Your task to perform on an android device: Clear the cart on bestbuy. Search for "macbook air" on bestbuy, select the first entry, add it to the cart, then select checkout. Image 0: 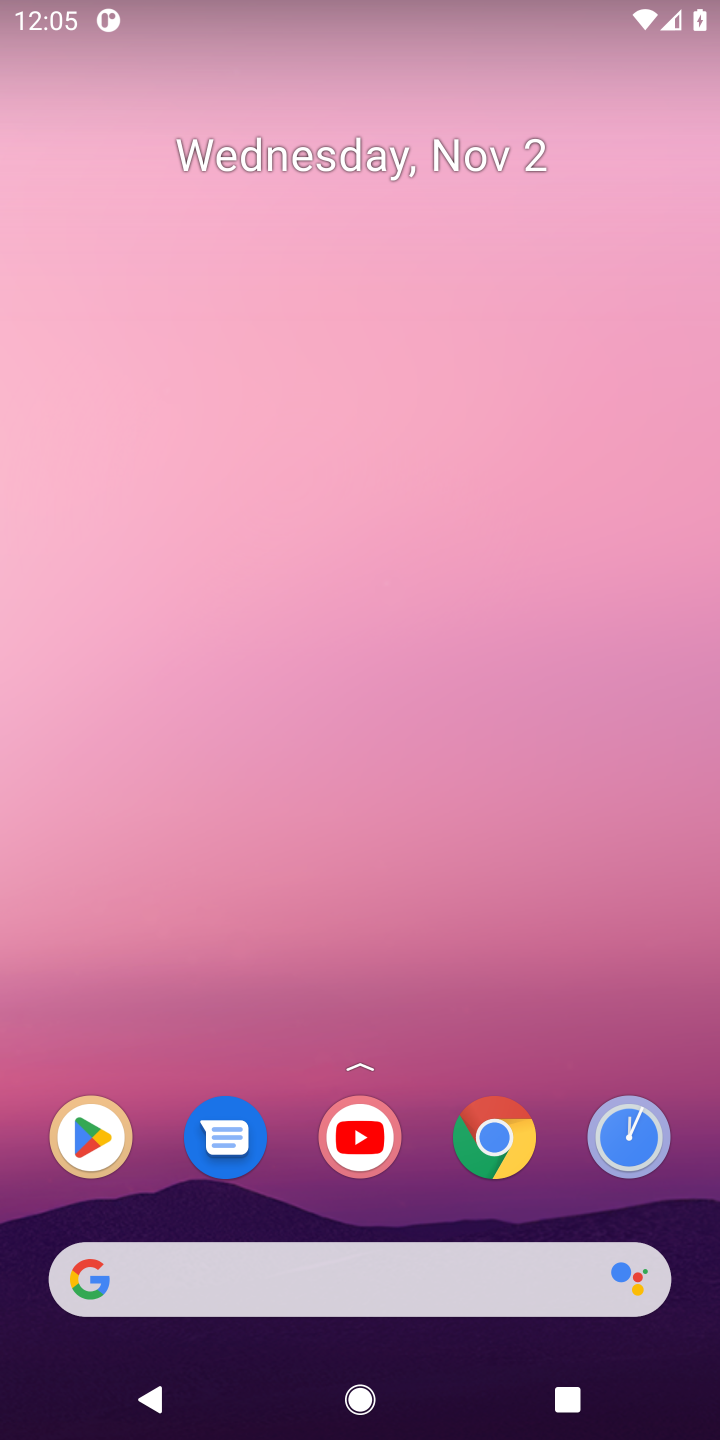
Step 0: click (248, 1295)
Your task to perform on an android device: Clear the cart on bestbuy. Search for "macbook air" on bestbuy, select the first entry, add it to the cart, then select checkout. Image 1: 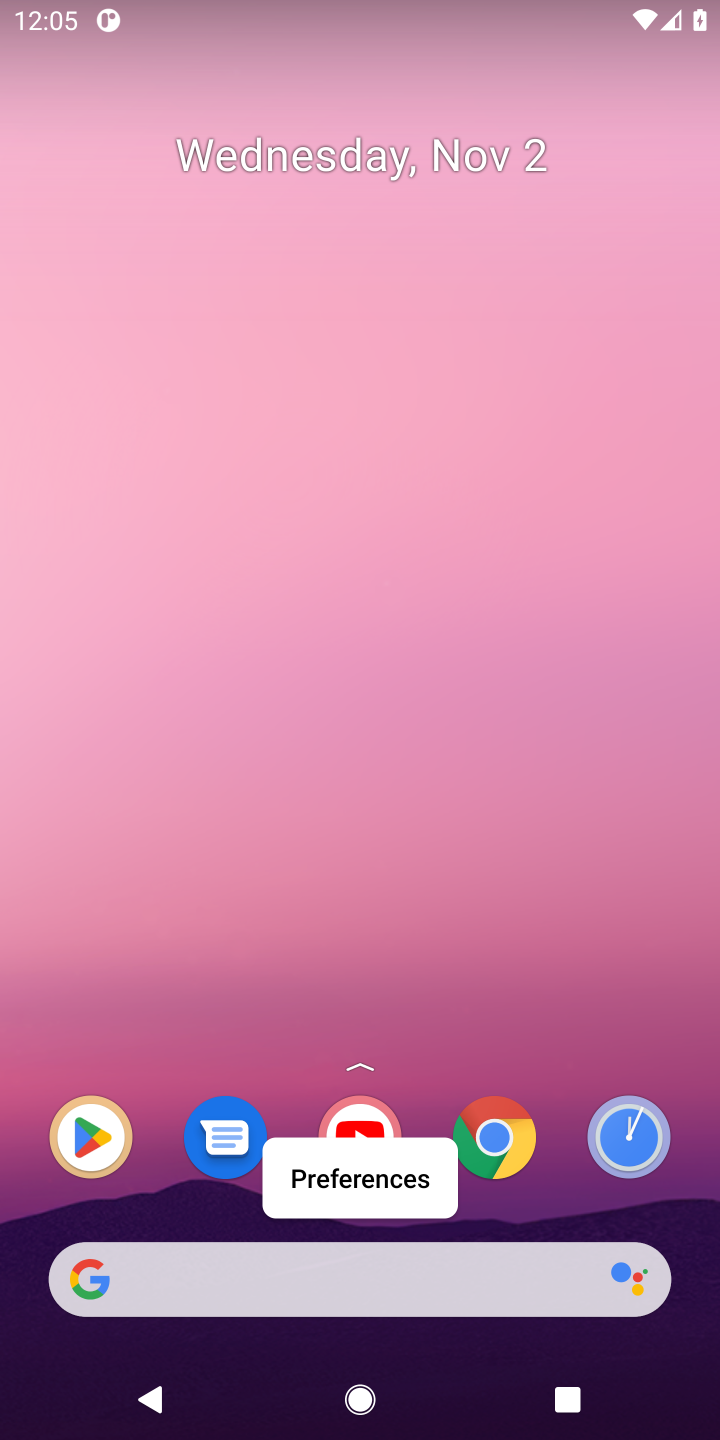
Step 1: click (248, 1295)
Your task to perform on an android device: Clear the cart on bestbuy. Search for "macbook air" on bestbuy, select the first entry, add it to the cart, then select checkout. Image 2: 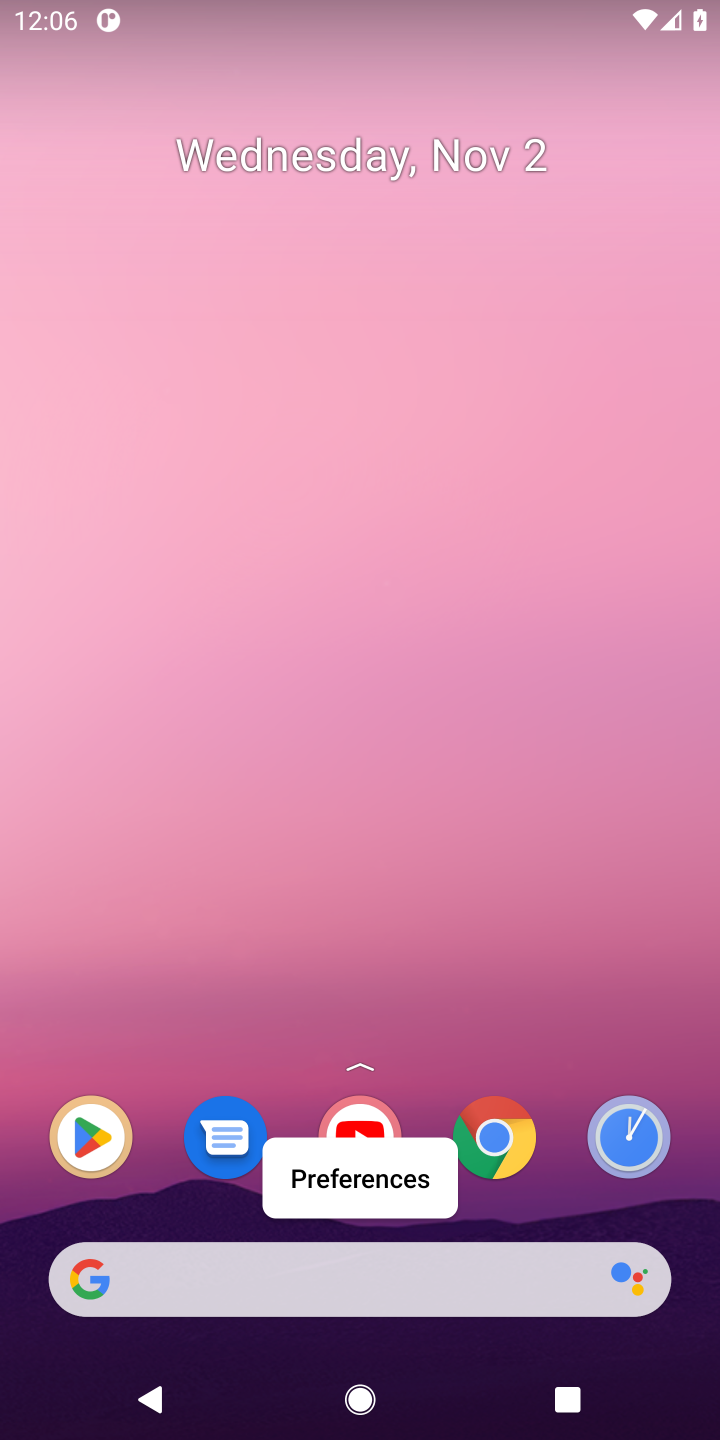
Step 2: click (408, 1291)
Your task to perform on an android device: Clear the cart on bestbuy. Search for "macbook air" on bestbuy, select the first entry, add it to the cart, then select checkout. Image 3: 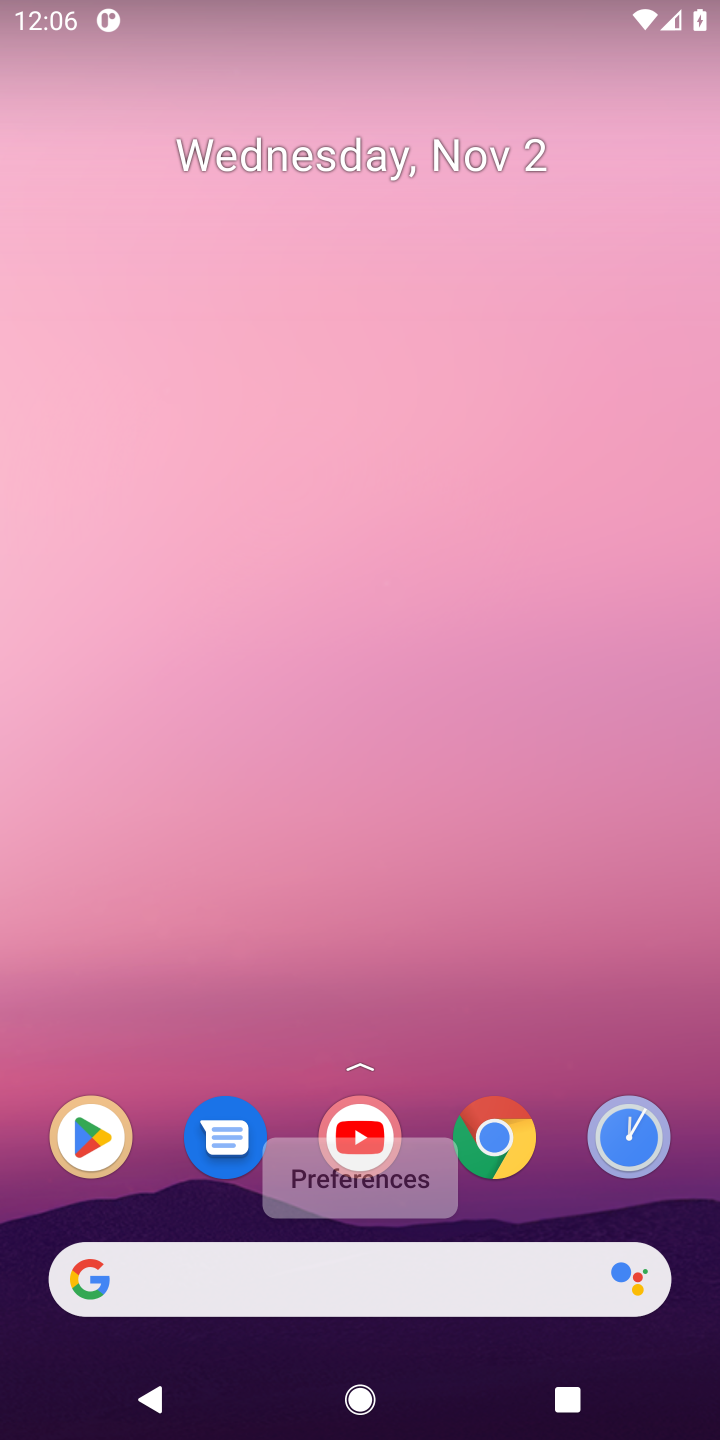
Step 3: click (408, 1291)
Your task to perform on an android device: Clear the cart on bestbuy. Search for "macbook air" on bestbuy, select the first entry, add it to the cart, then select checkout. Image 4: 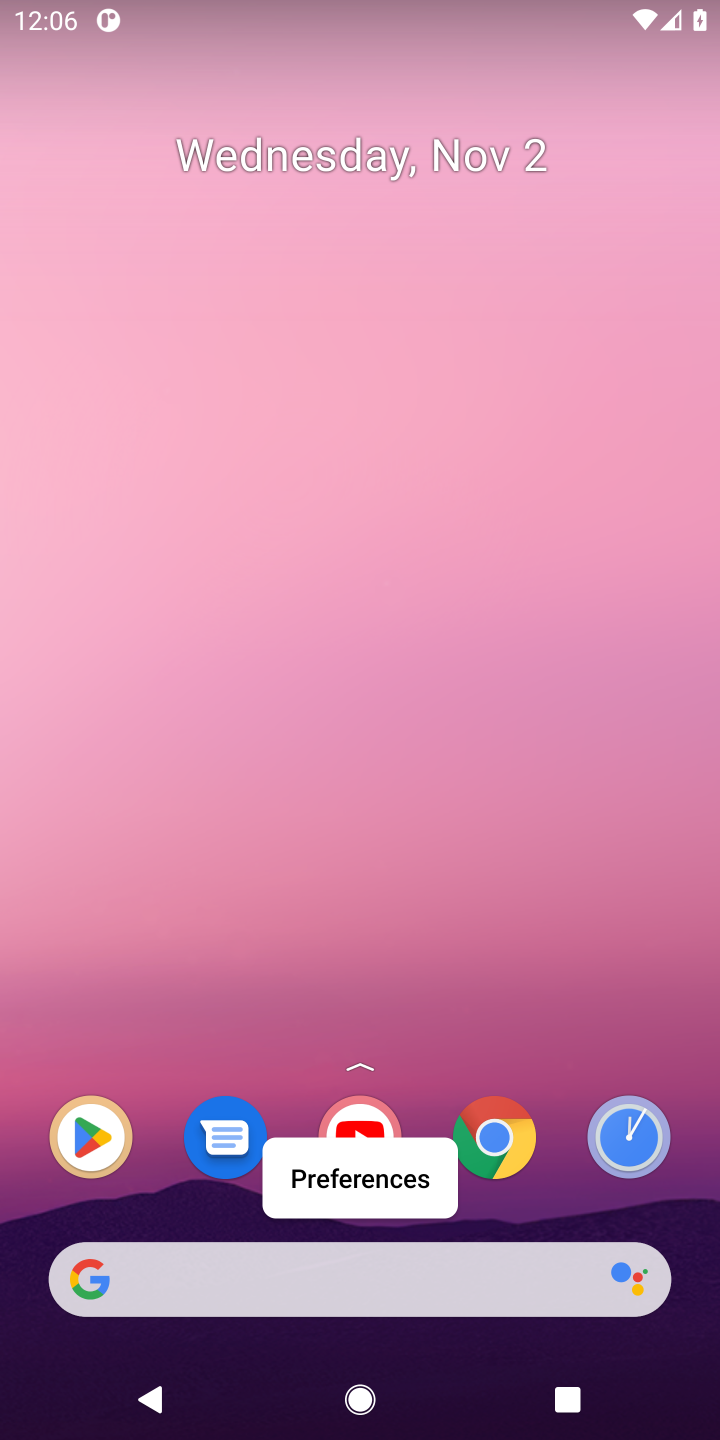
Step 4: click (218, 1264)
Your task to perform on an android device: Clear the cart on bestbuy. Search for "macbook air" on bestbuy, select the first entry, add it to the cart, then select checkout. Image 5: 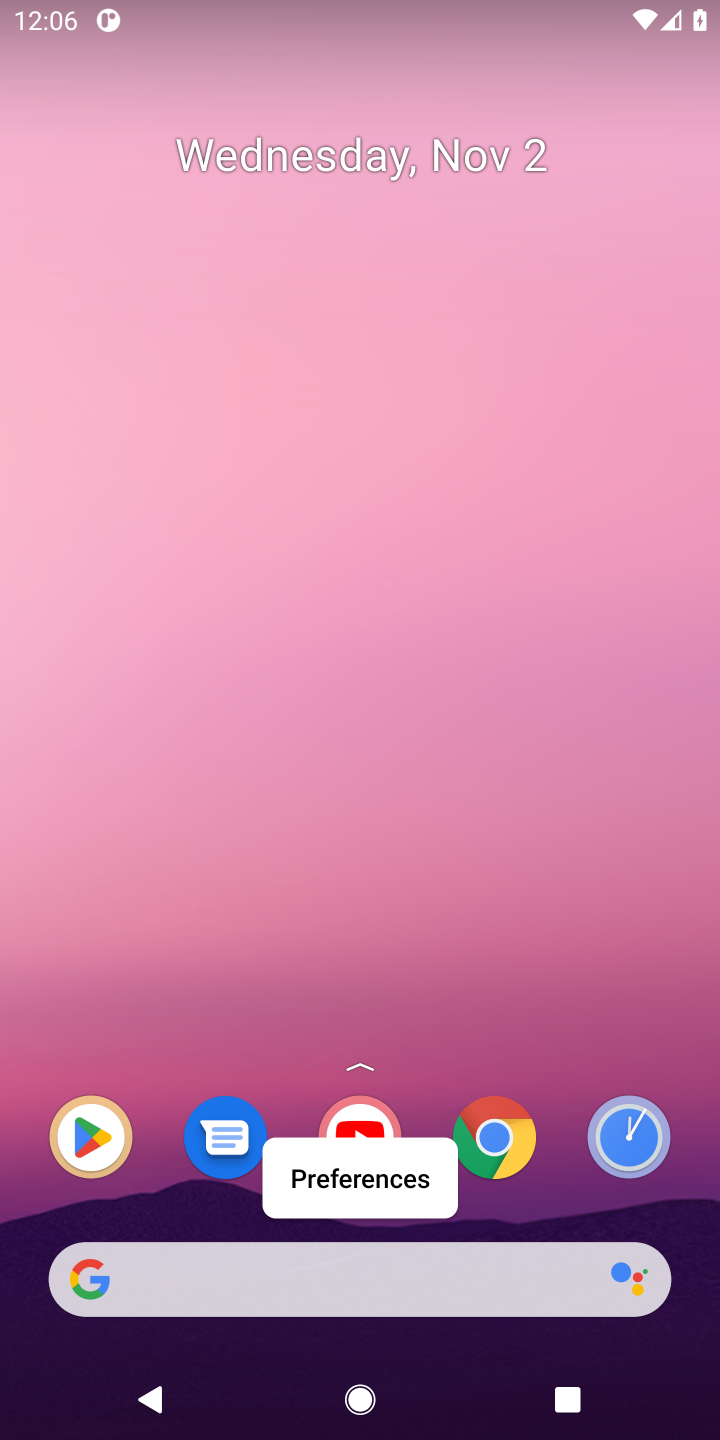
Step 5: click (184, 1275)
Your task to perform on an android device: Clear the cart on bestbuy. Search for "macbook air" on bestbuy, select the first entry, add it to the cart, then select checkout. Image 6: 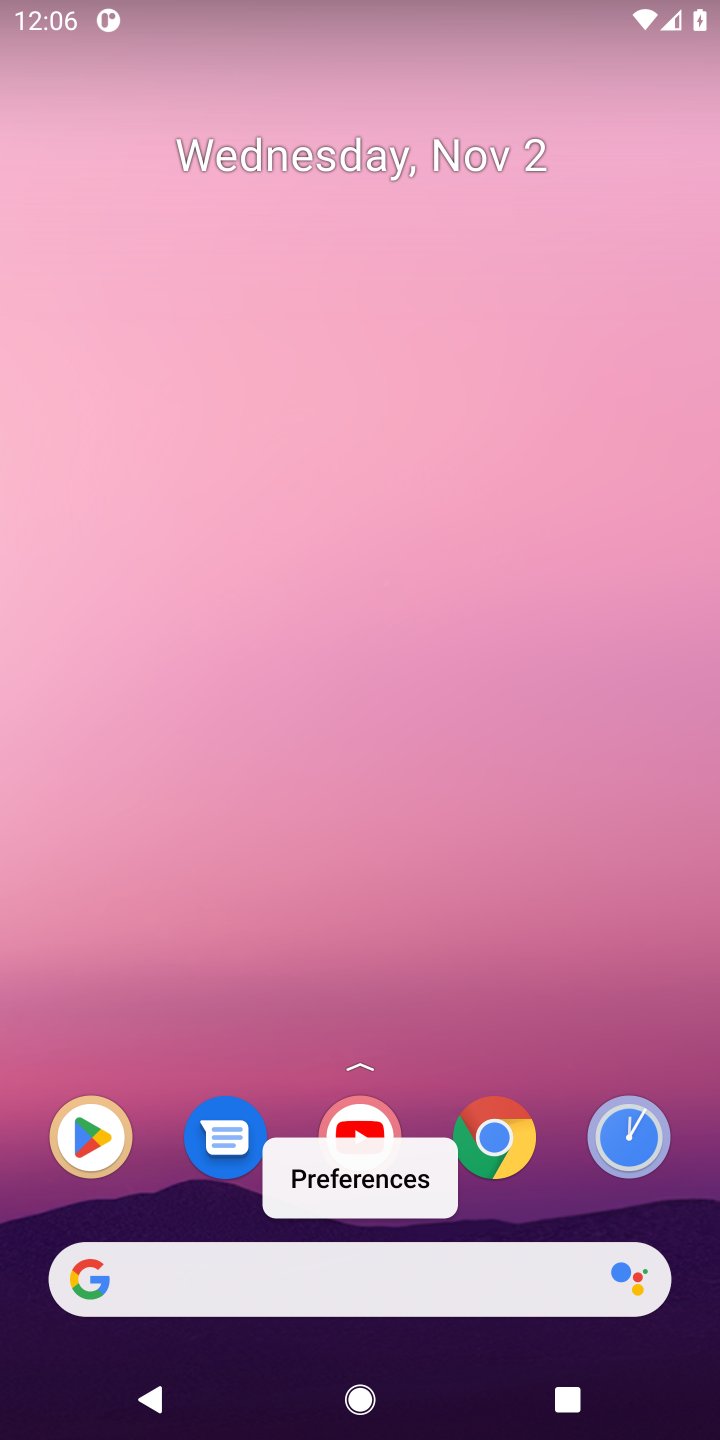
Step 6: click (184, 1275)
Your task to perform on an android device: Clear the cart on bestbuy. Search for "macbook air" on bestbuy, select the first entry, add it to the cart, then select checkout. Image 7: 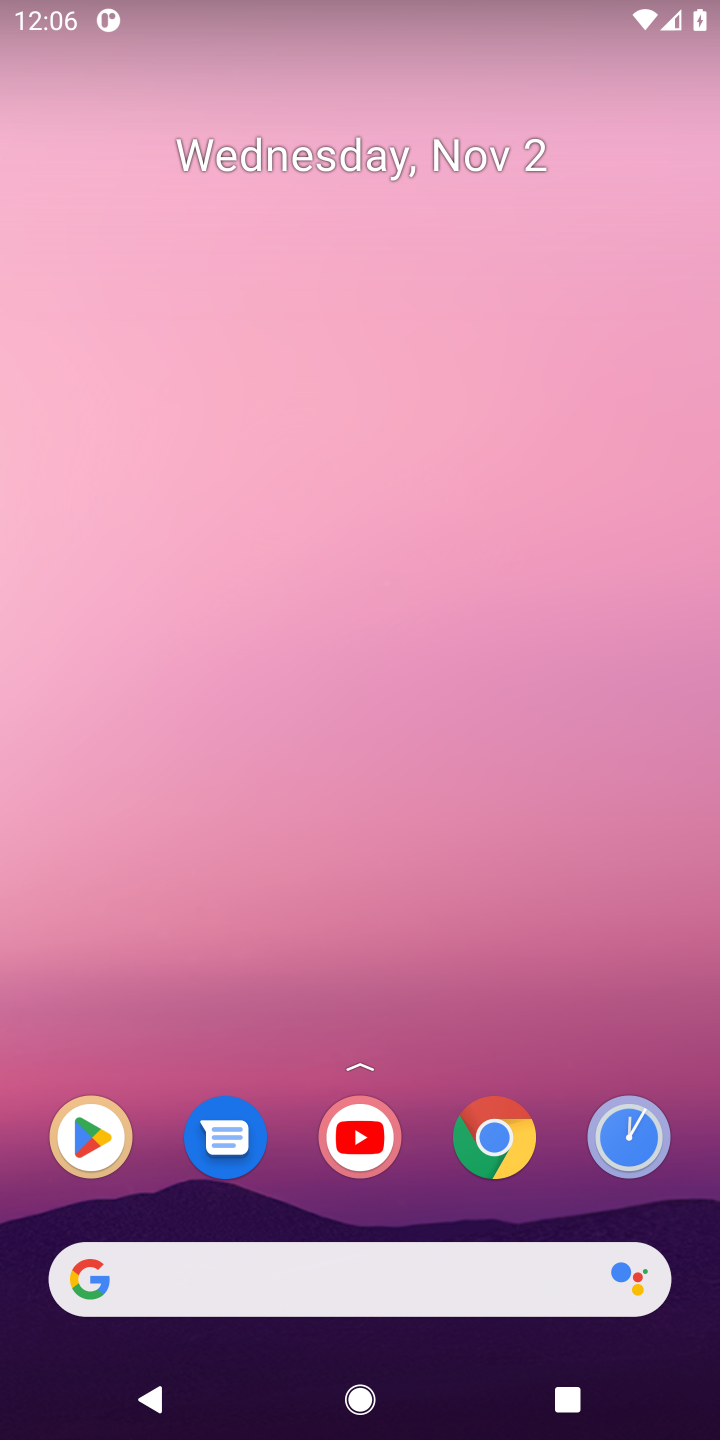
Step 7: click (184, 1275)
Your task to perform on an android device: Clear the cart on bestbuy. Search for "macbook air" on bestbuy, select the first entry, add it to the cart, then select checkout. Image 8: 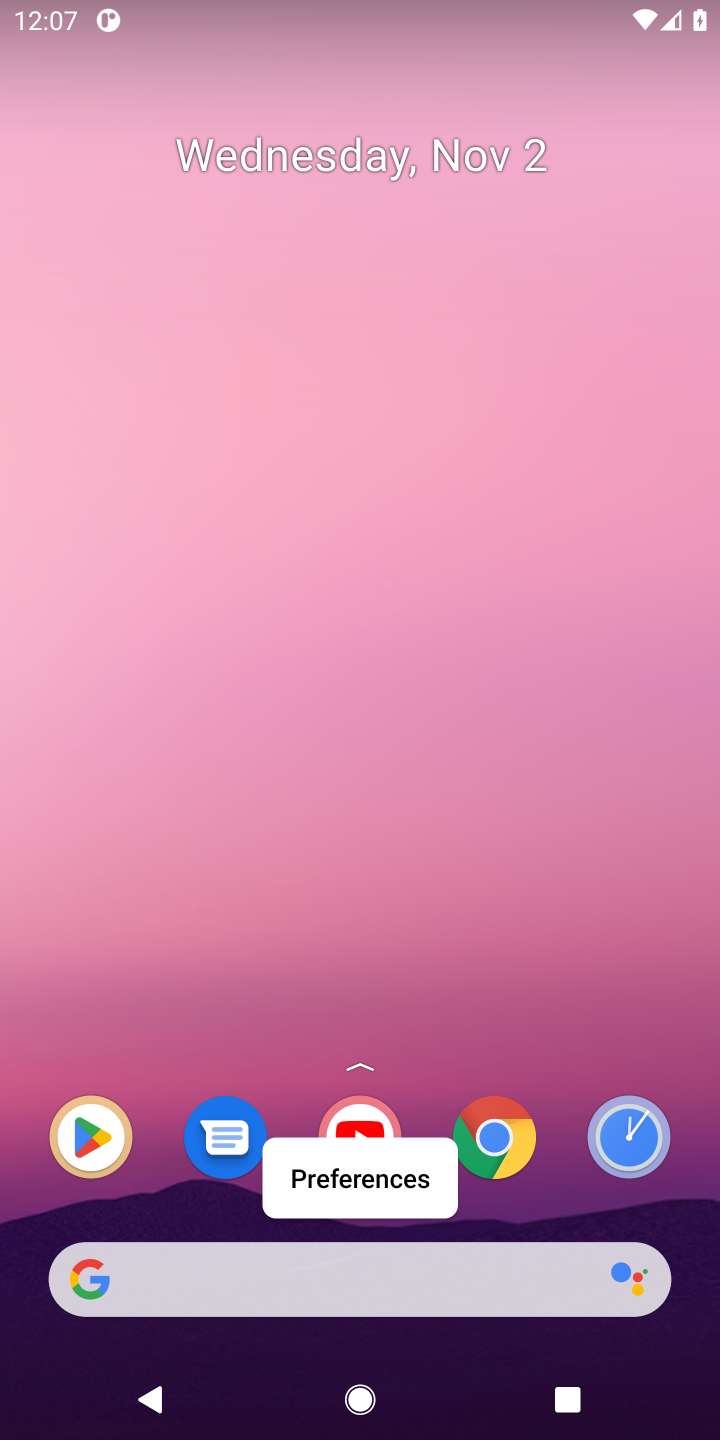
Step 8: click (344, 1257)
Your task to perform on an android device: Clear the cart on bestbuy. Search for "macbook air" on bestbuy, select the first entry, add it to the cart, then select checkout. Image 9: 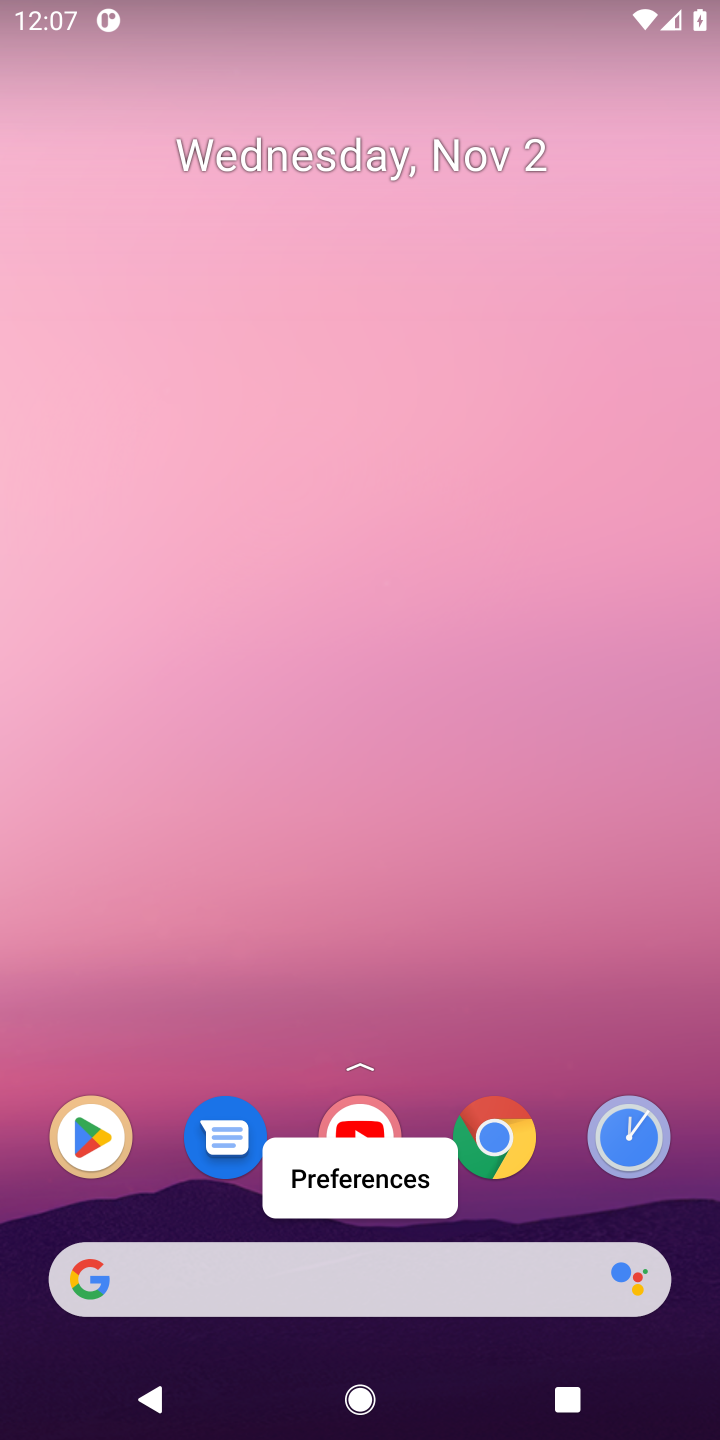
Step 9: click (344, 1257)
Your task to perform on an android device: Clear the cart on bestbuy. Search for "macbook air" on bestbuy, select the first entry, add it to the cart, then select checkout. Image 10: 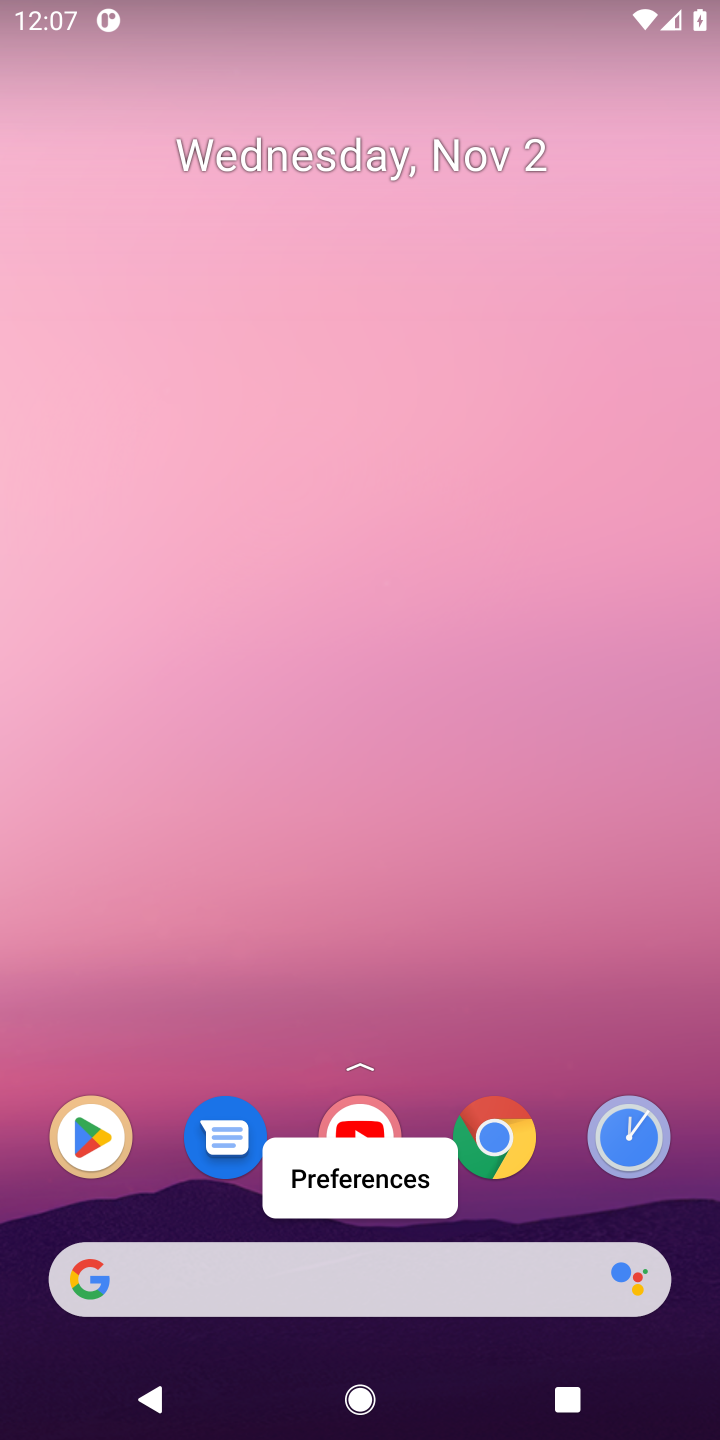
Step 10: click (344, 1257)
Your task to perform on an android device: Clear the cart on bestbuy. Search for "macbook air" on bestbuy, select the first entry, add it to the cart, then select checkout. Image 11: 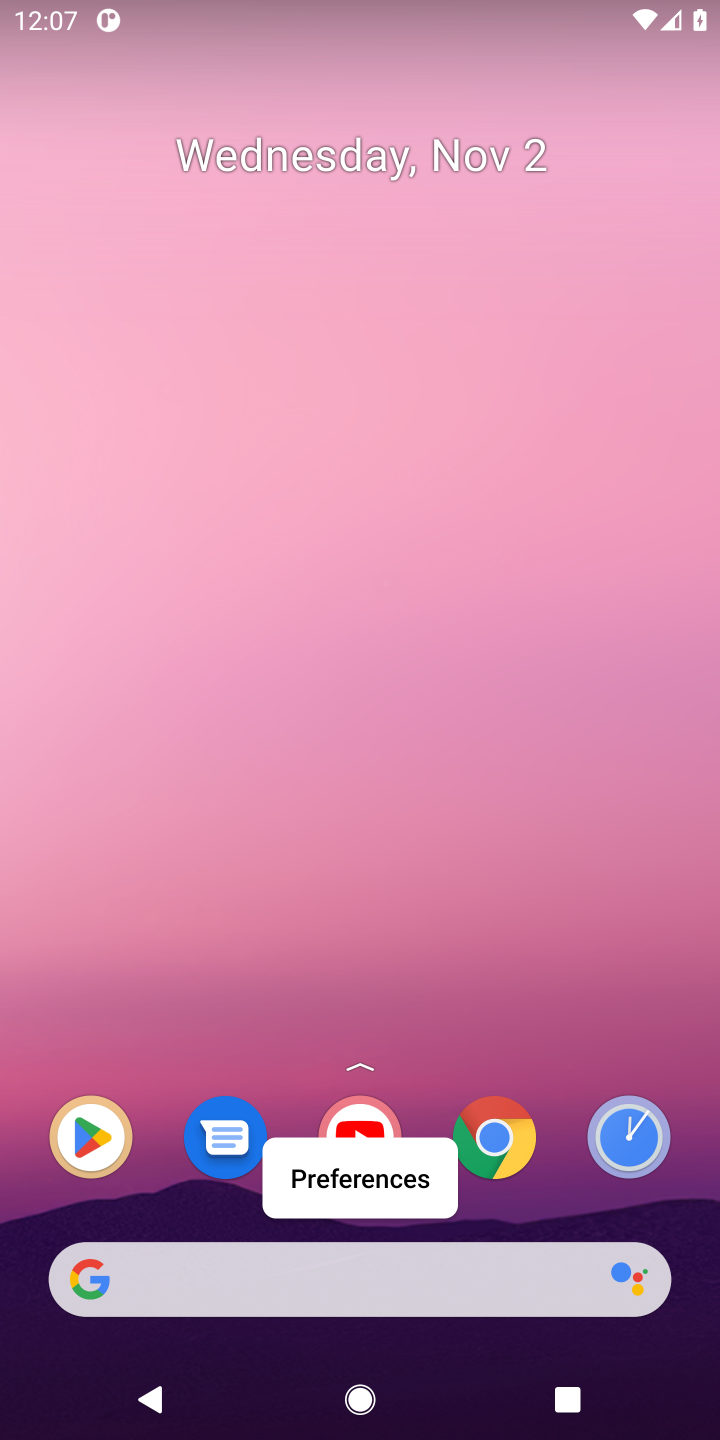
Step 11: click (503, 1150)
Your task to perform on an android device: Clear the cart on bestbuy. Search for "macbook air" on bestbuy, select the first entry, add it to the cart, then select checkout. Image 12: 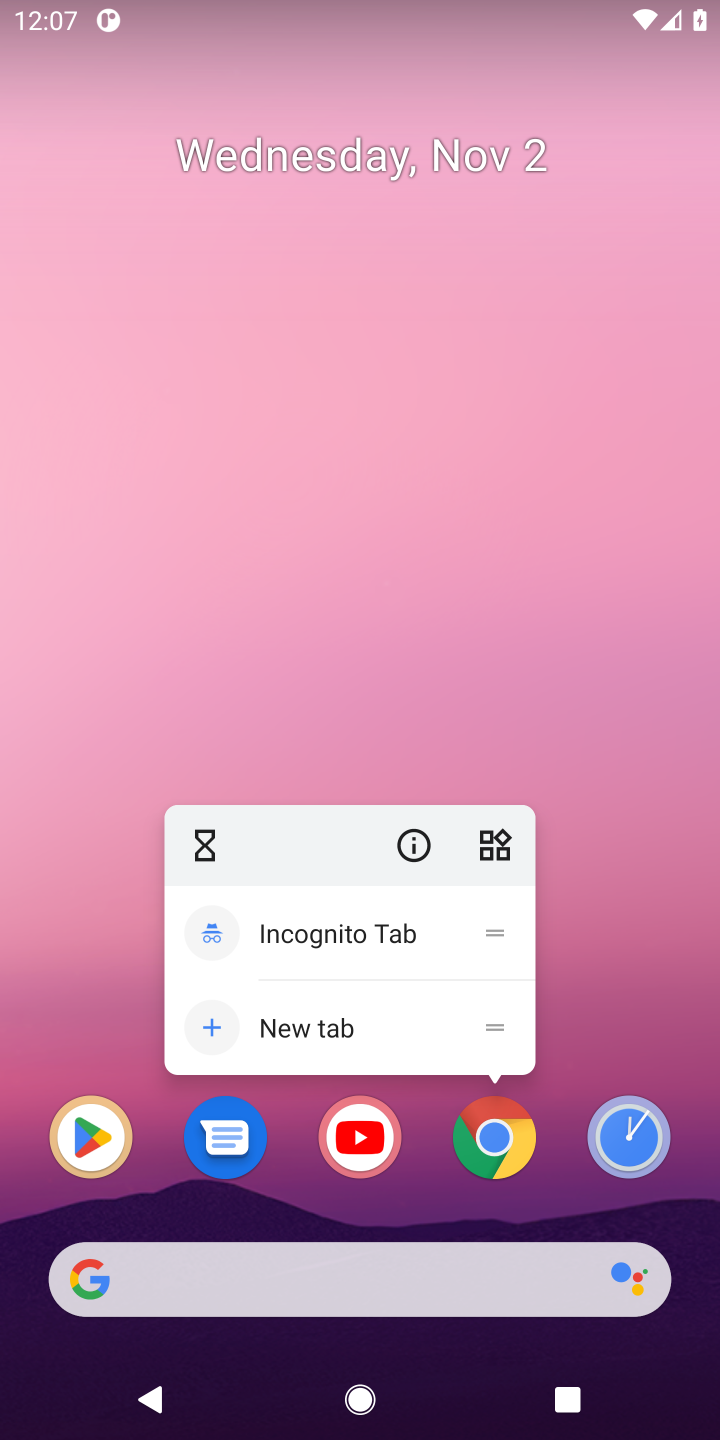
Step 12: click (501, 1145)
Your task to perform on an android device: Clear the cart on bestbuy. Search for "macbook air" on bestbuy, select the first entry, add it to the cart, then select checkout. Image 13: 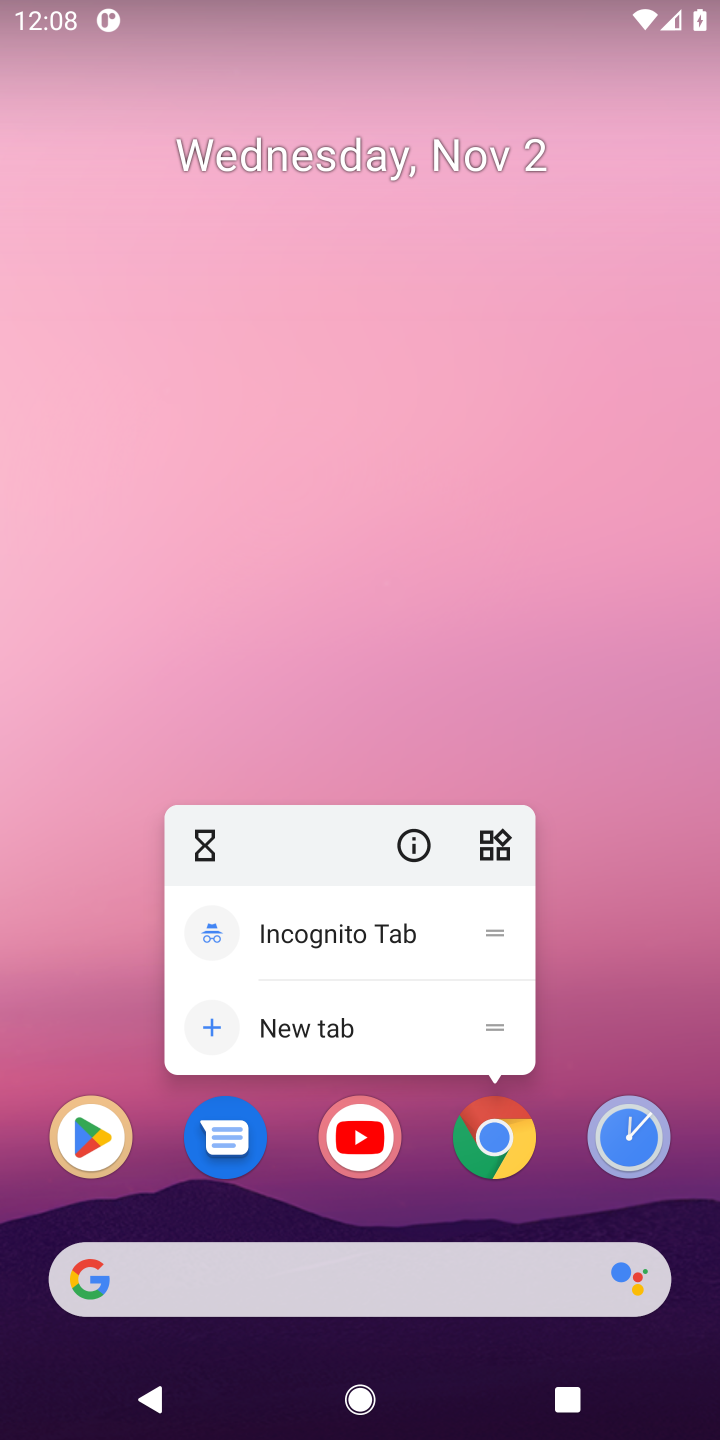
Step 13: click (499, 1145)
Your task to perform on an android device: Clear the cart on bestbuy. Search for "macbook air" on bestbuy, select the first entry, add it to the cart, then select checkout. Image 14: 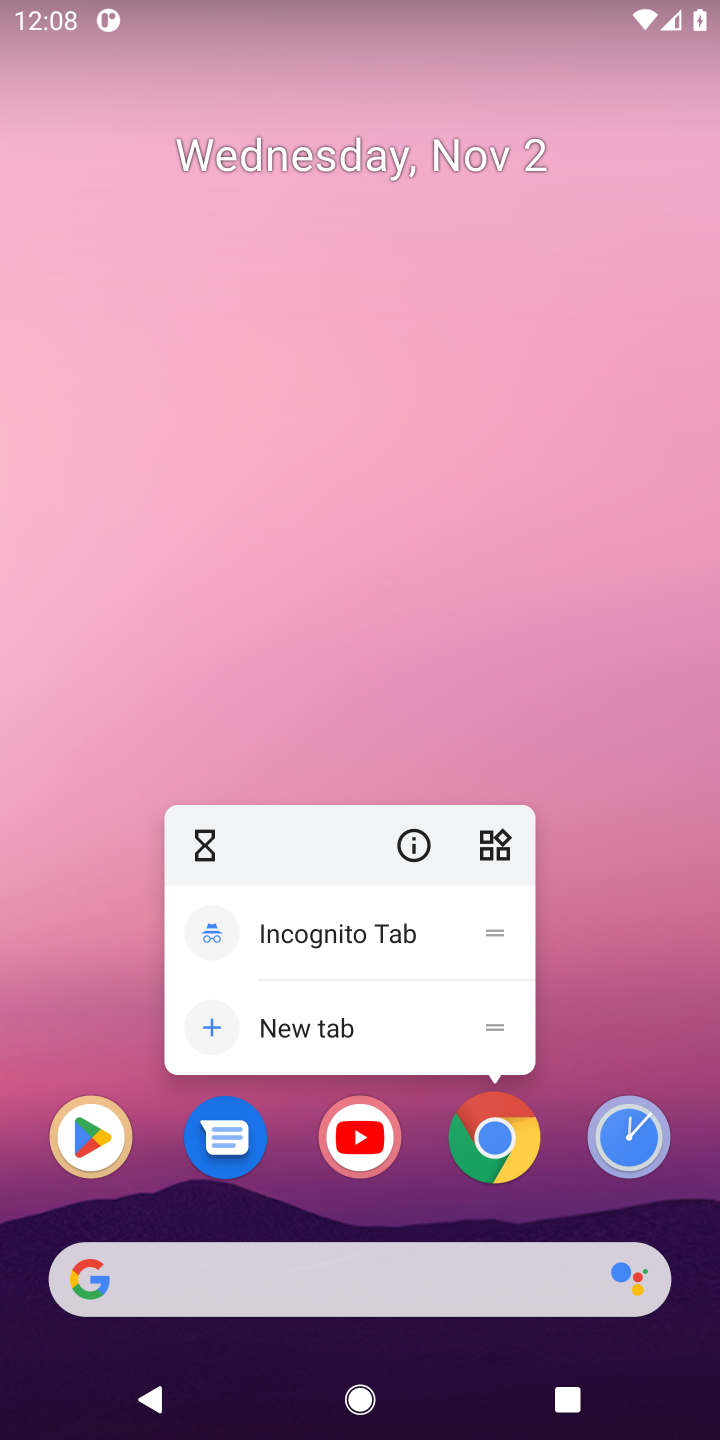
Step 14: click (499, 1145)
Your task to perform on an android device: Clear the cart on bestbuy. Search for "macbook air" on bestbuy, select the first entry, add it to the cart, then select checkout. Image 15: 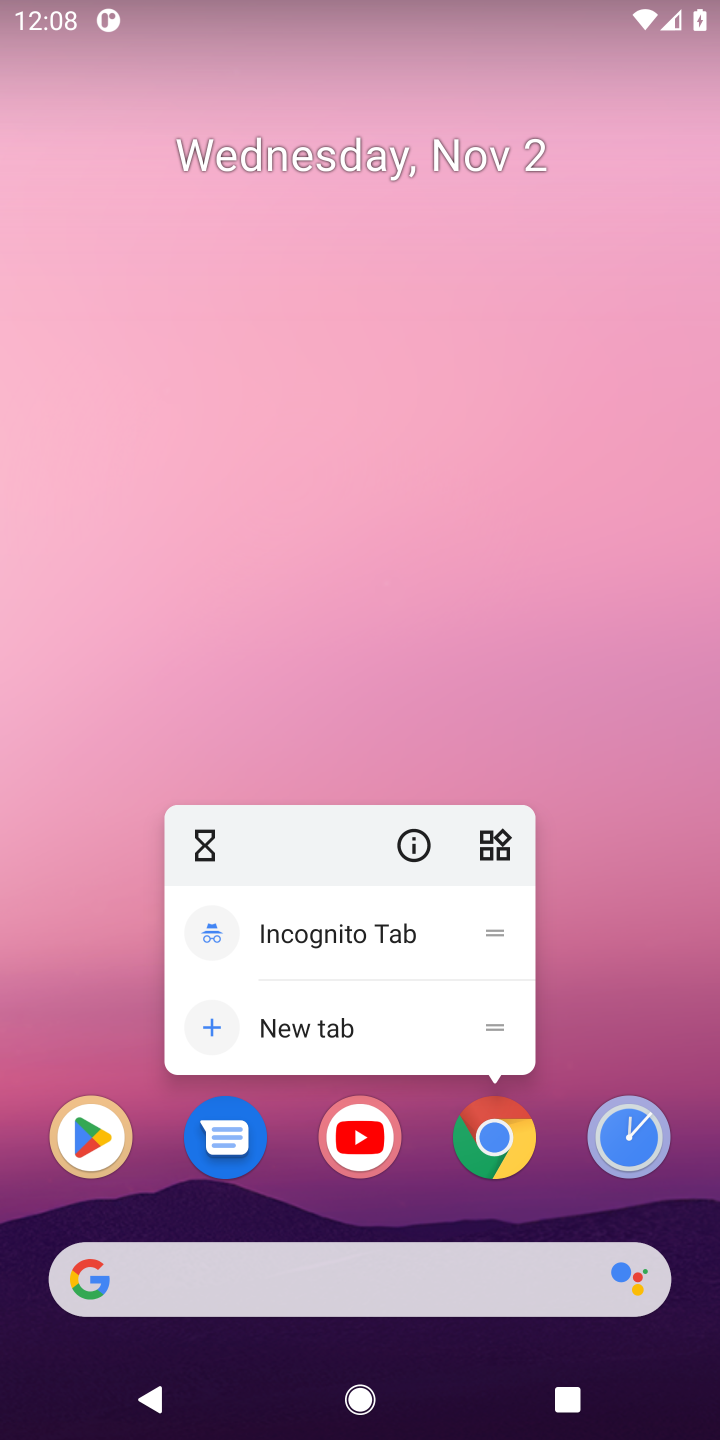
Step 15: click (499, 1145)
Your task to perform on an android device: Clear the cart on bestbuy. Search for "macbook air" on bestbuy, select the first entry, add it to the cart, then select checkout. Image 16: 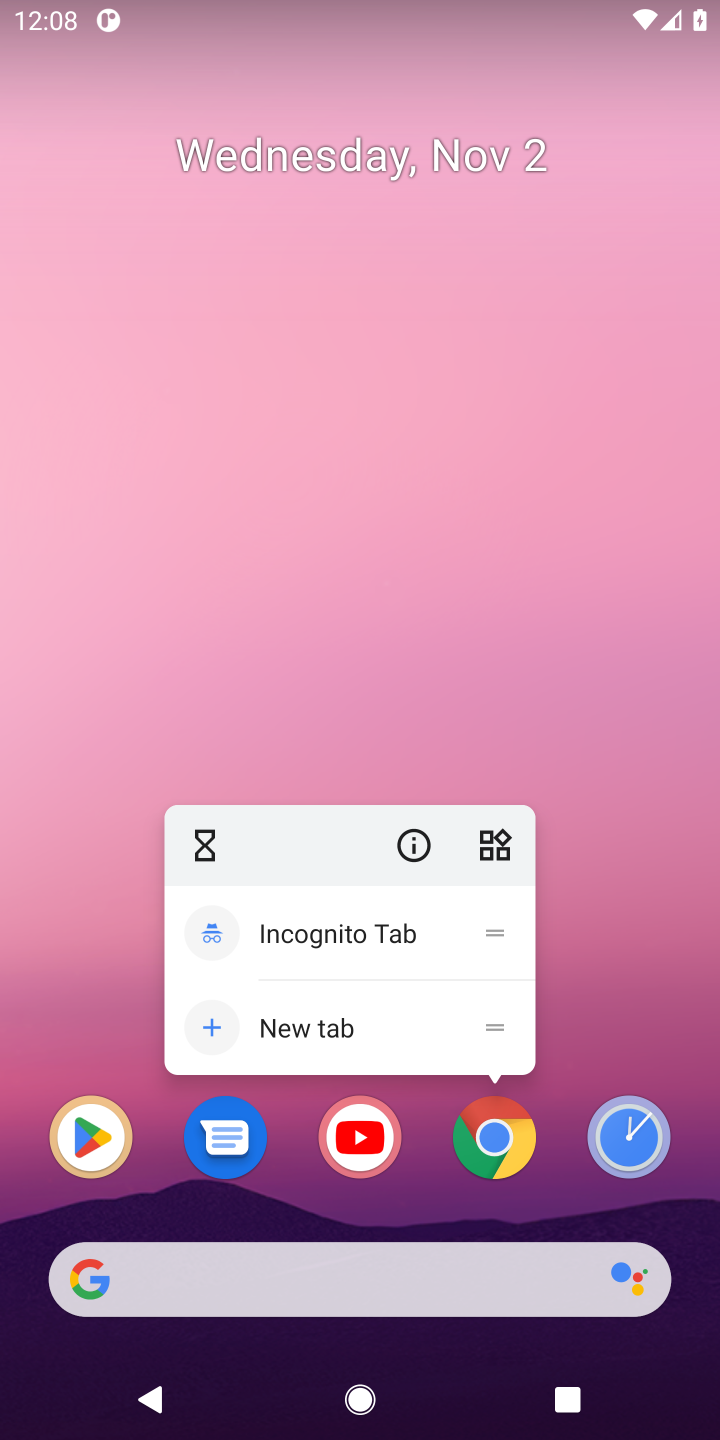
Step 16: click (499, 1145)
Your task to perform on an android device: Clear the cart on bestbuy. Search for "macbook air" on bestbuy, select the first entry, add it to the cart, then select checkout. Image 17: 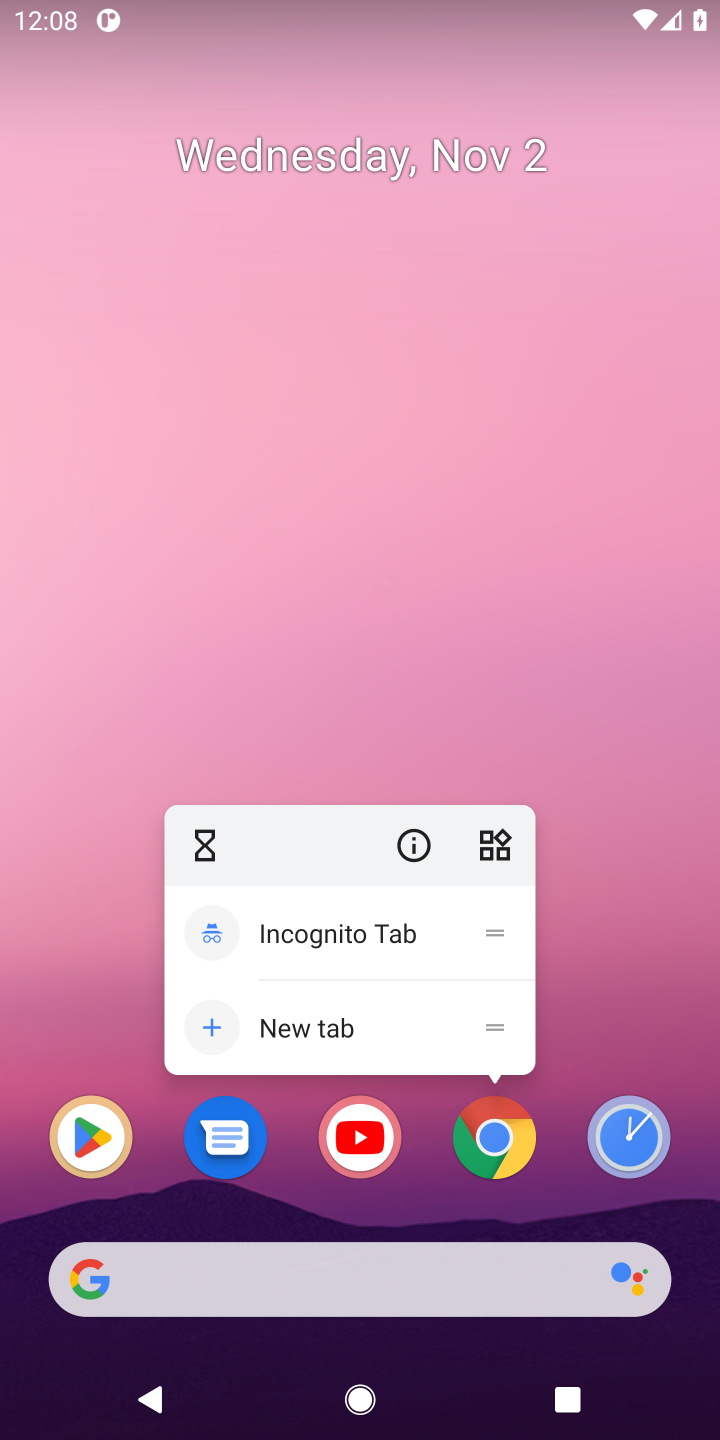
Step 17: click (499, 1145)
Your task to perform on an android device: Clear the cart on bestbuy. Search for "macbook air" on bestbuy, select the first entry, add it to the cart, then select checkout. Image 18: 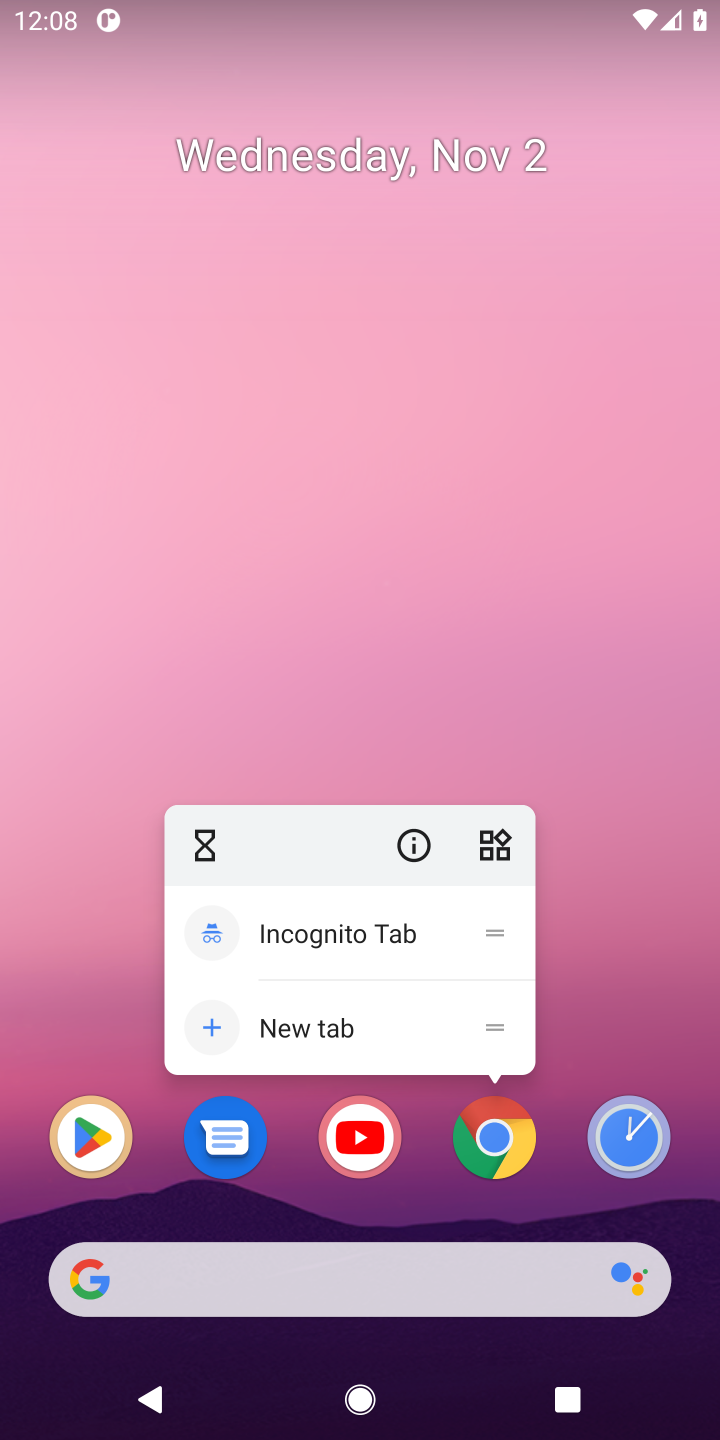
Step 18: click (499, 1145)
Your task to perform on an android device: Clear the cart on bestbuy. Search for "macbook air" on bestbuy, select the first entry, add it to the cart, then select checkout. Image 19: 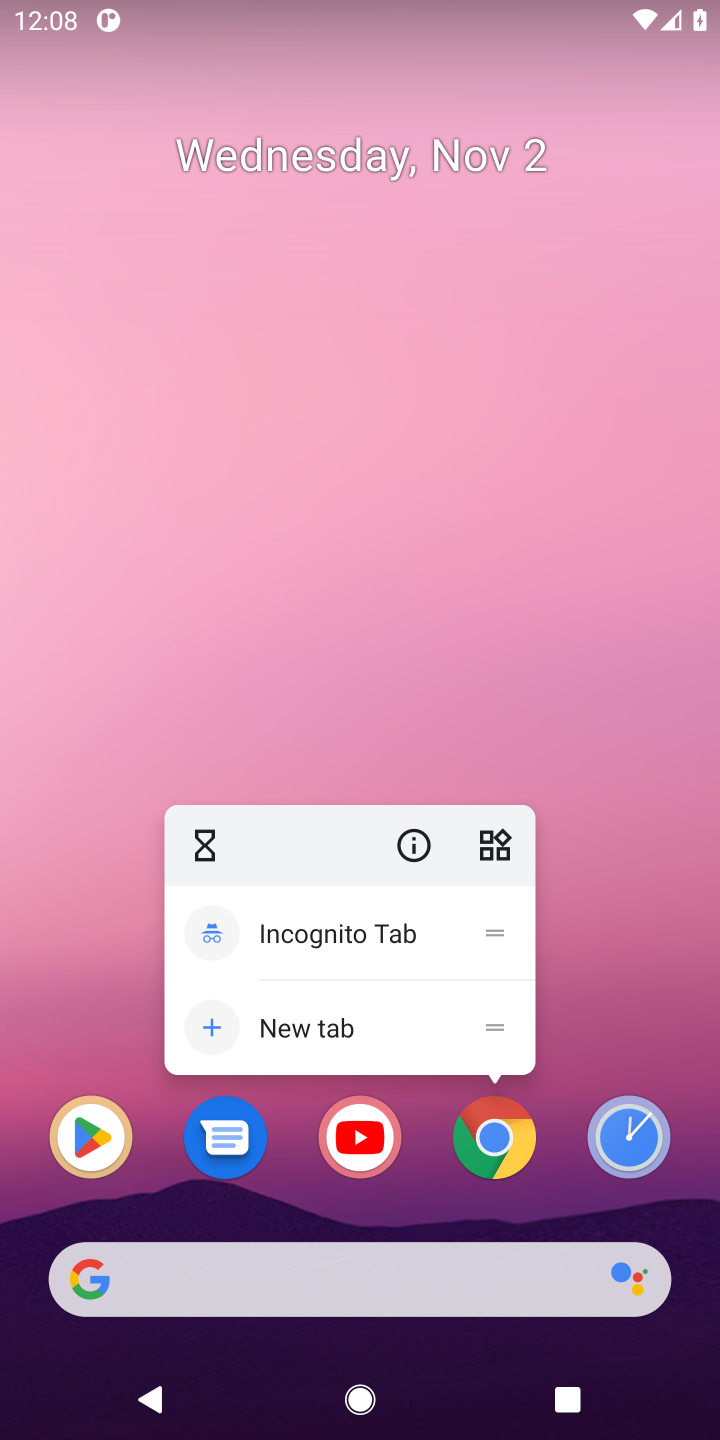
Step 19: click (499, 1145)
Your task to perform on an android device: Clear the cart on bestbuy. Search for "macbook air" on bestbuy, select the first entry, add it to the cart, then select checkout. Image 20: 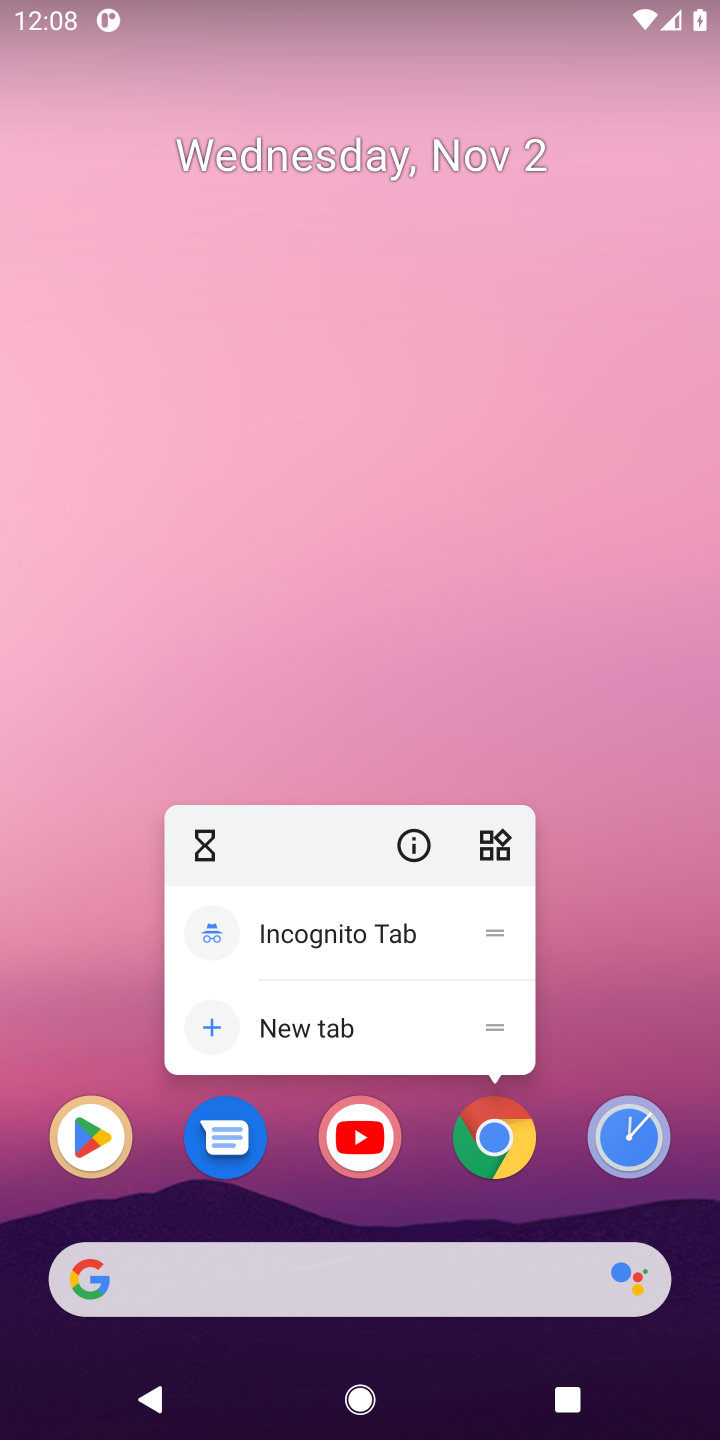
Step 20: click (499, 1145)
Your task to perform on an android device: Clear the cart on bestbuy. Search for "macbook air" on bestbuy, select the first entry, add it to the cart, then select checkout. Image 21: 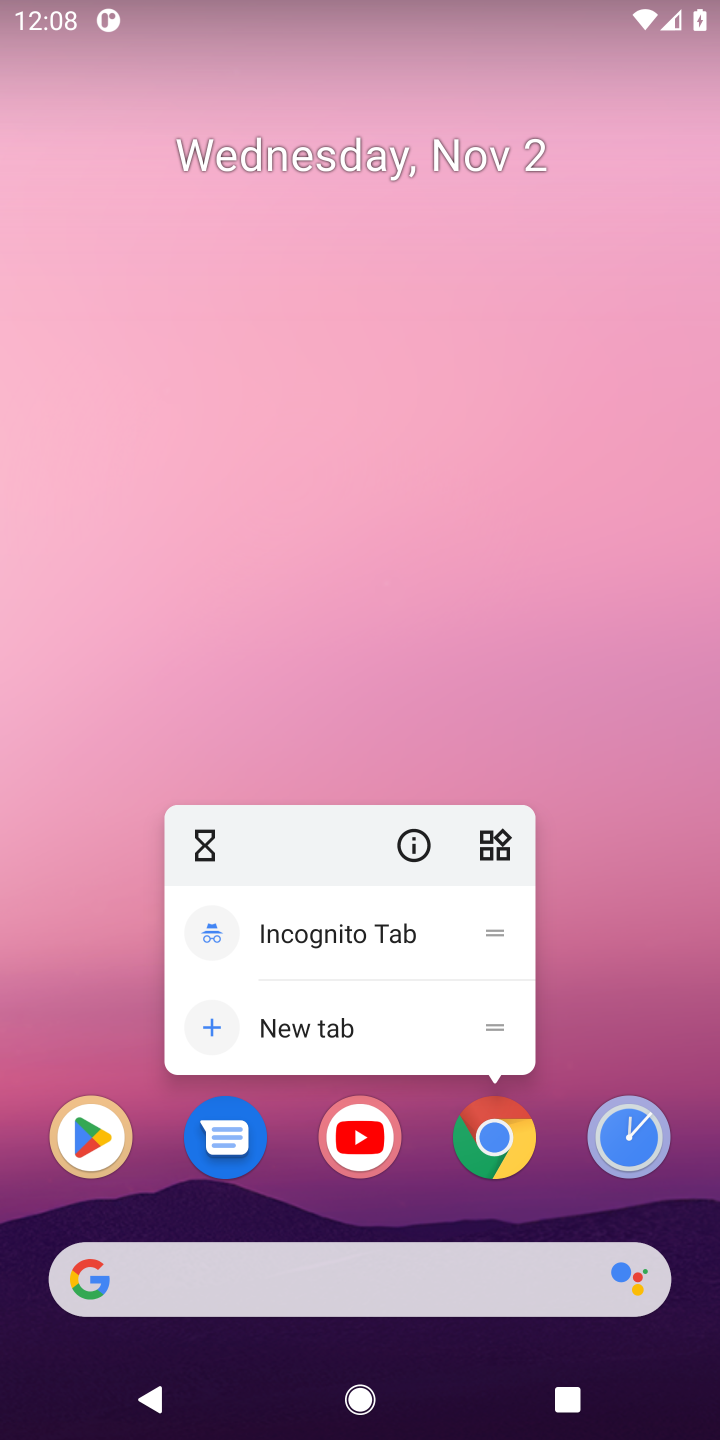
Step 21: click (496, 1145)
Your task to perform on an android device: Clear the cart on bestbuy. Search for "macbook air" on bestbuy, select the first entry, add it to the cart, then select checkout. Image 22: 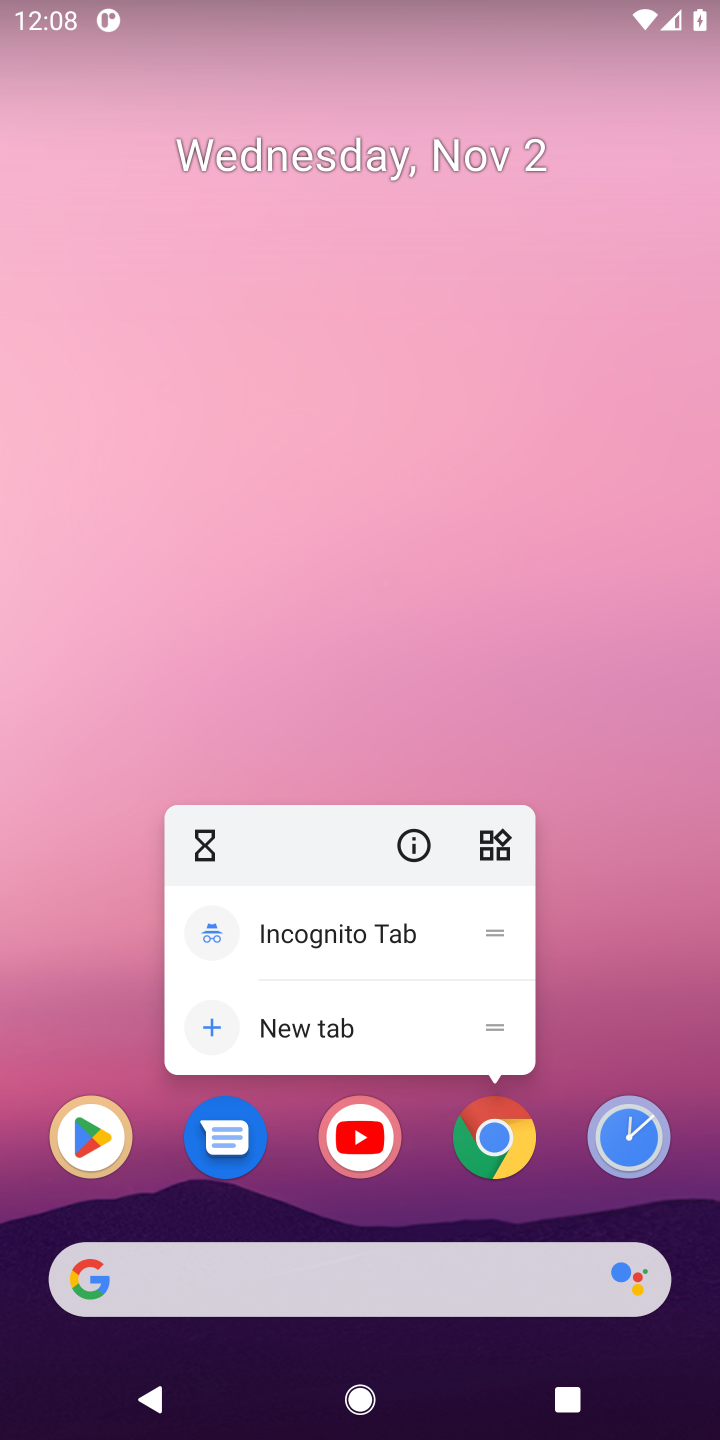
Step 22: click (496, 1145)
Your task to perform on an android device: Clear the cart on bestbuy. Search for "macbook air" on bestbuy, select the first entry, add it to the cart, then select checkout. Image 23: 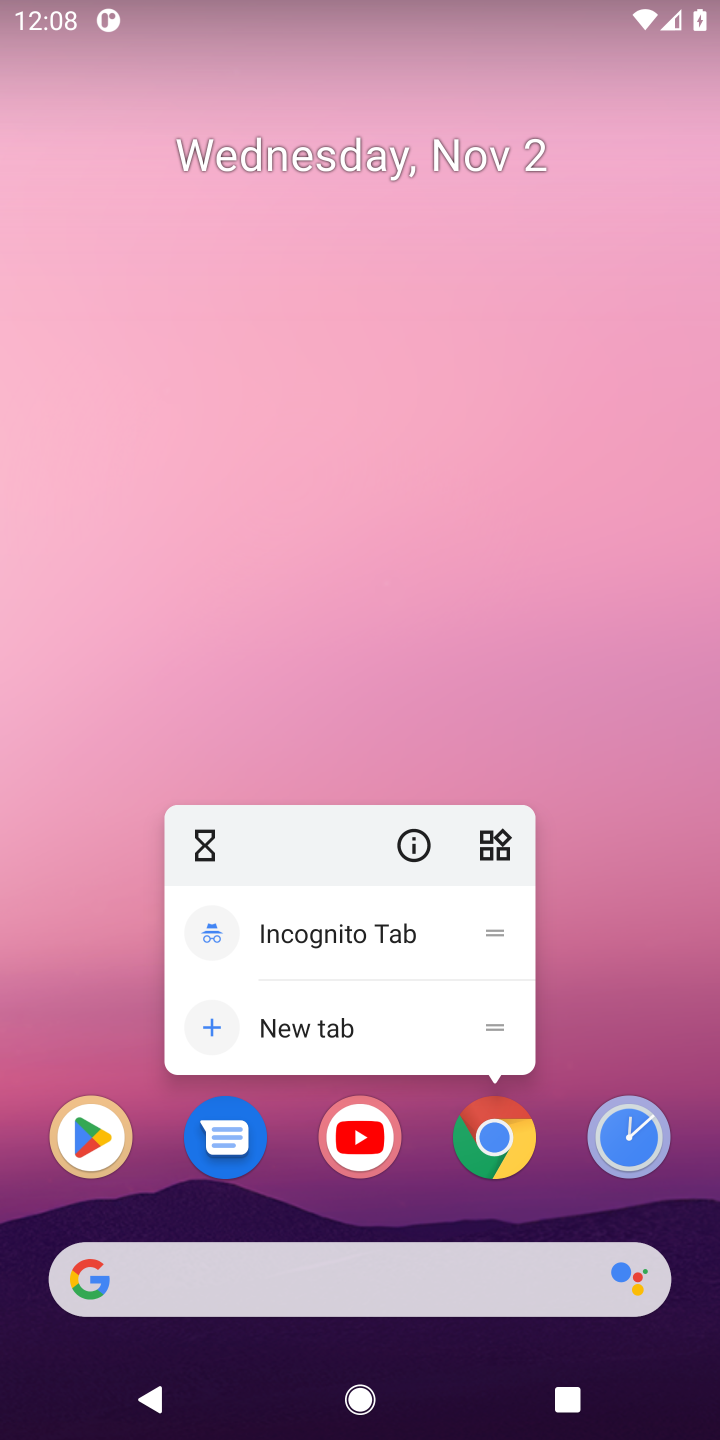
Step 23: task complete